Your task to perform on an android device: make emails show in primary in the gmail app Image 0: 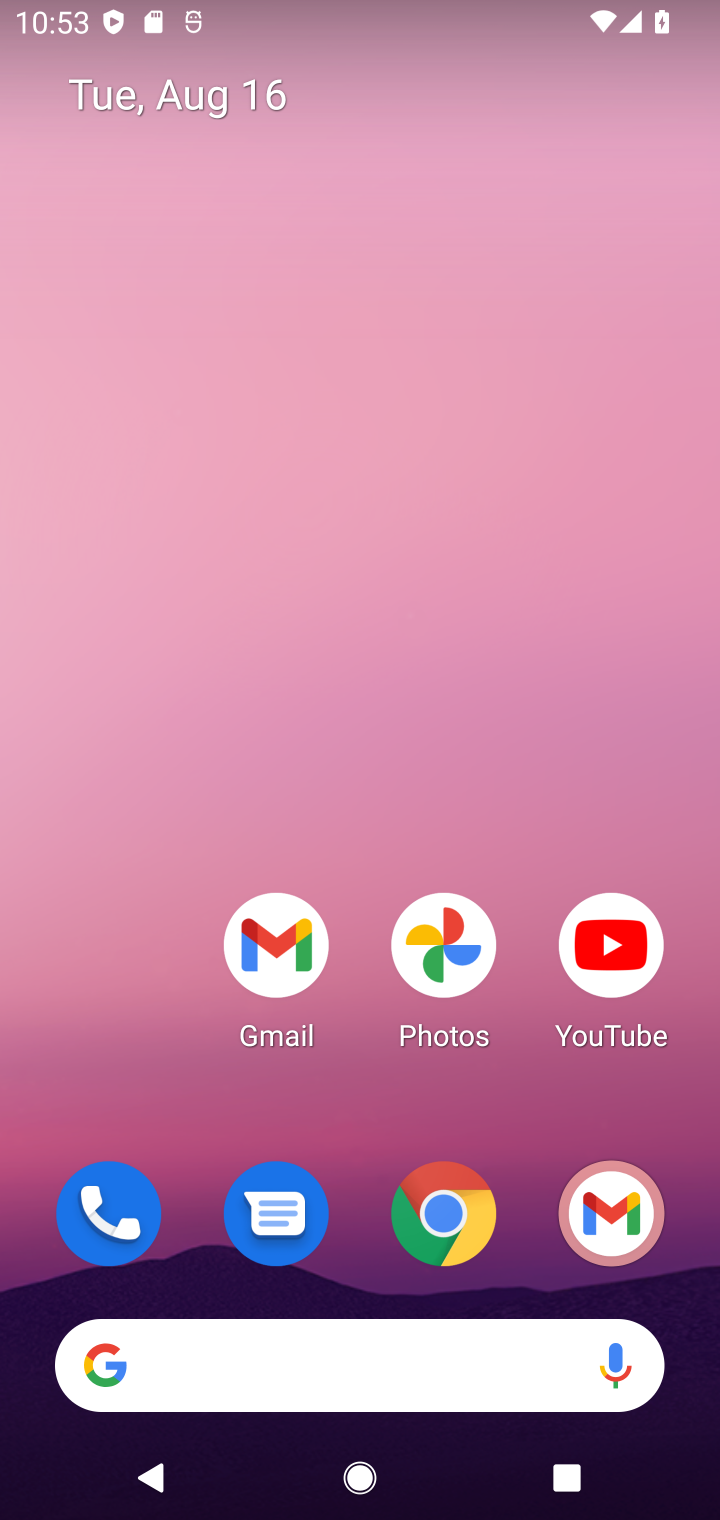
Step 0: drag from (340, 1122) to (516, 41)
Your task to perform on an android device: make emails show in primary in the gmail app Image 1: 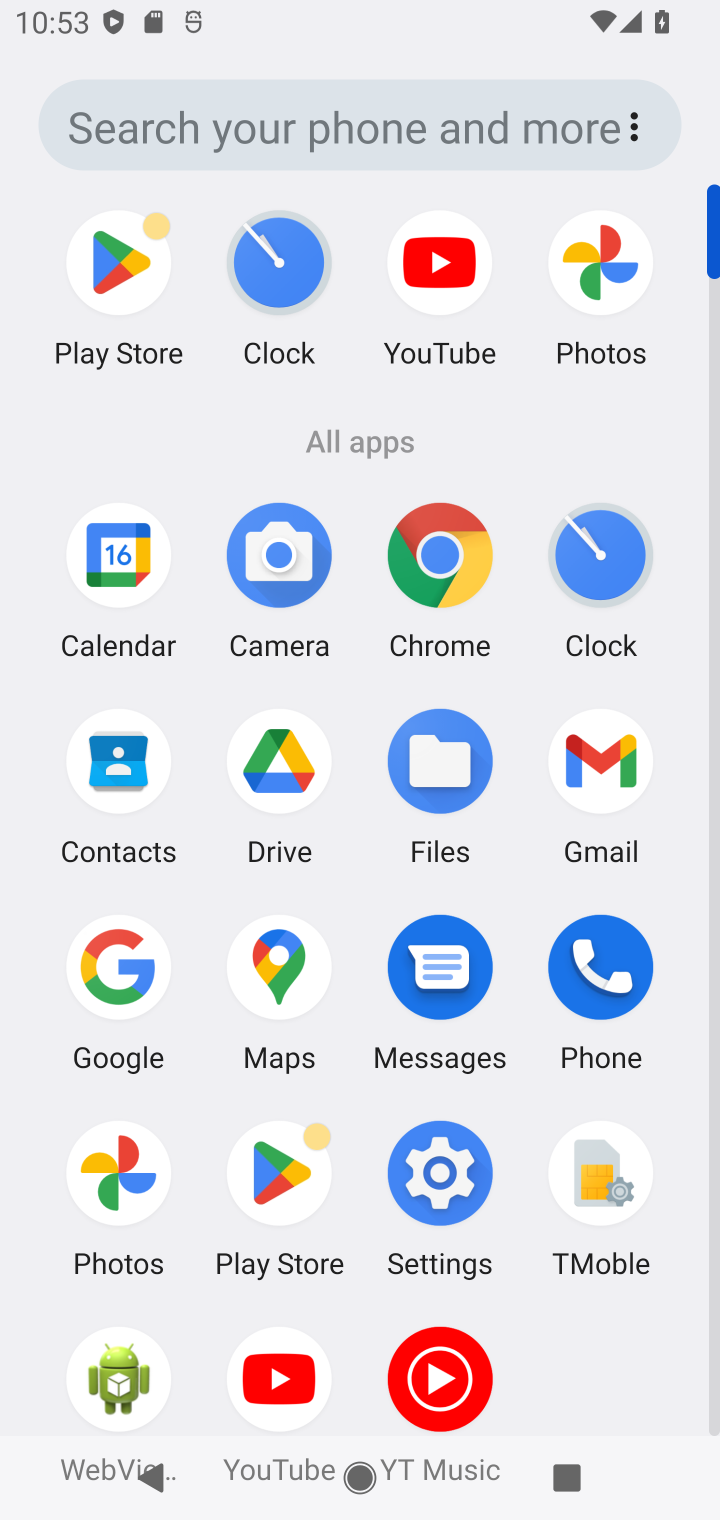
Step 1: click (599, 736)
Your task to perform on an android device: make emails show in primary in the gmail app Image 2: 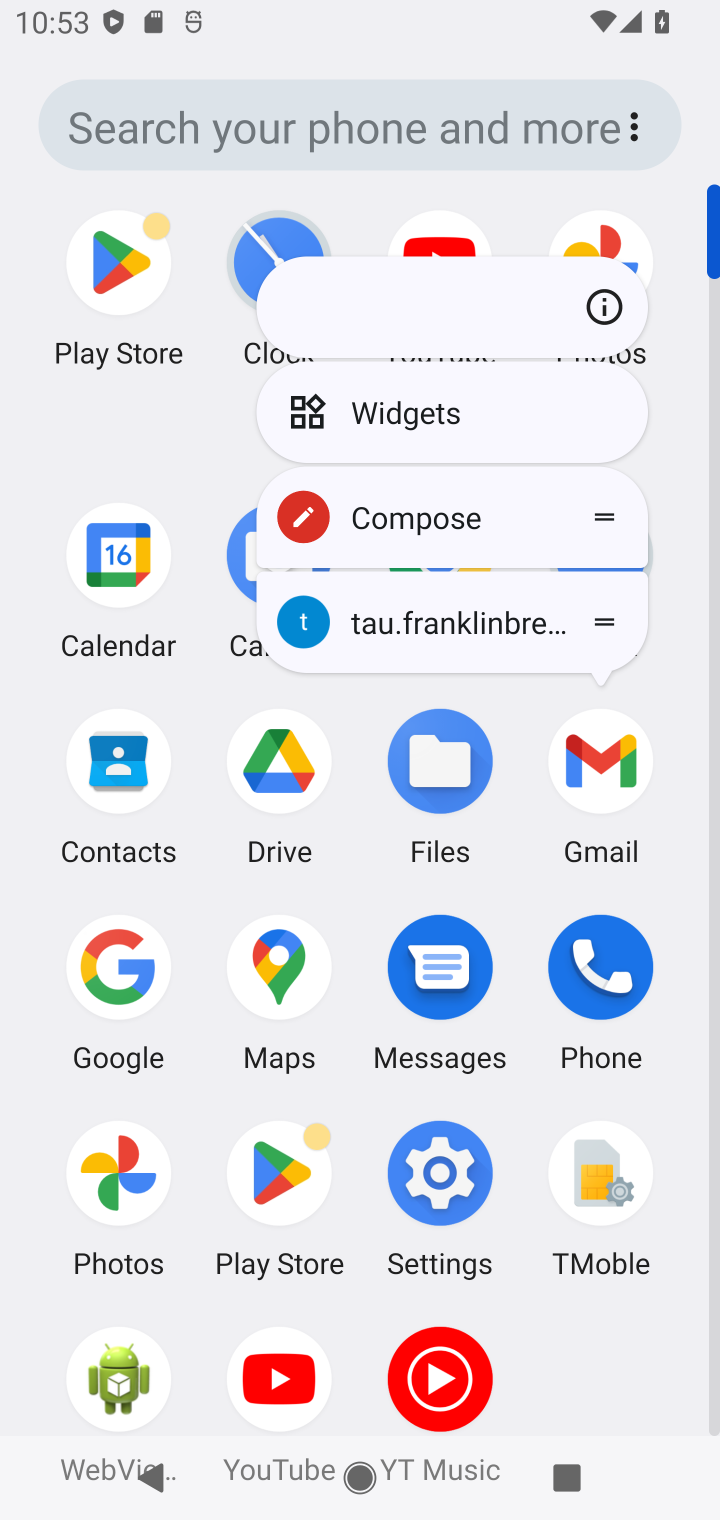
Step 2: click (585, 763)
Your task to perform on an android device: make emails show in primary in the gmail app Image 3: 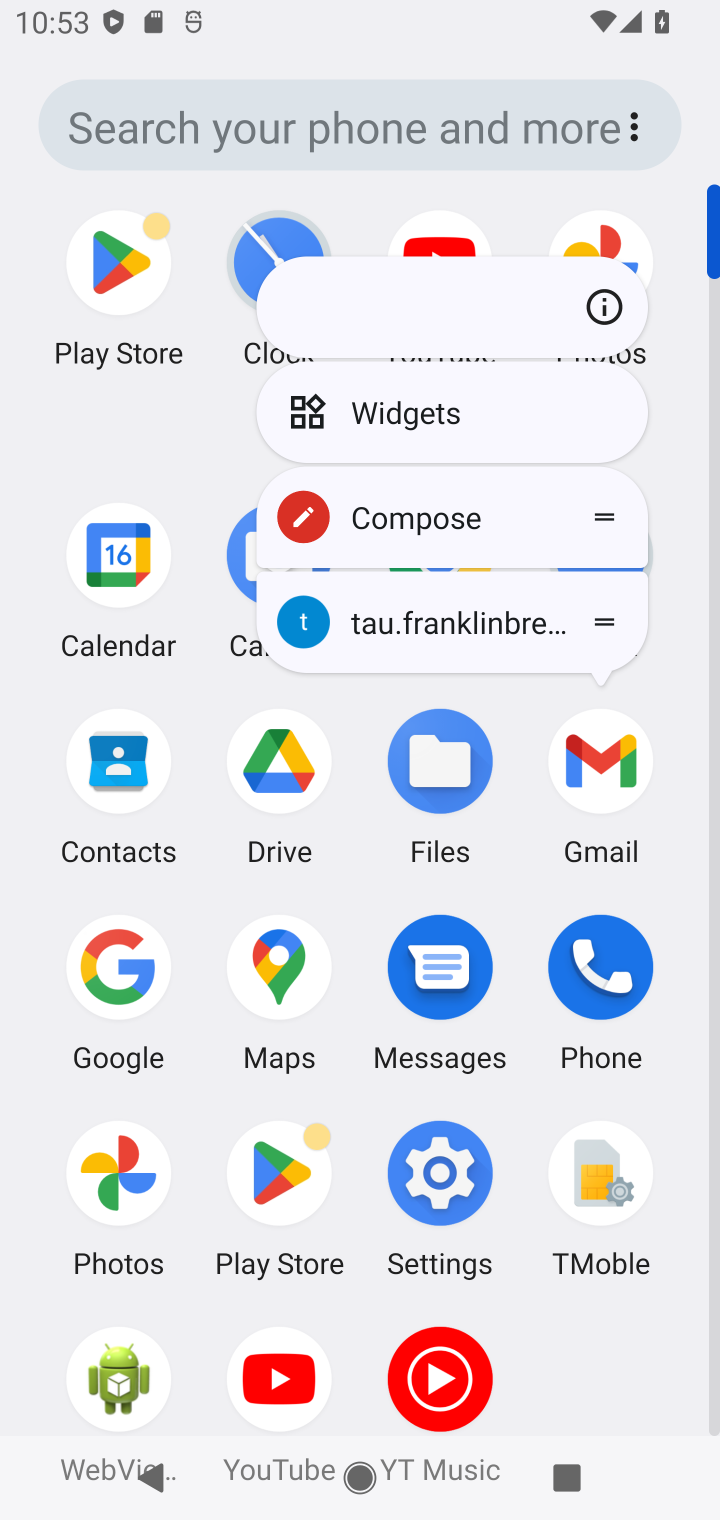
Step 3: click (585, 763)
Your task to perform on an android device: make emails show in primary in the gmail app Image 4: 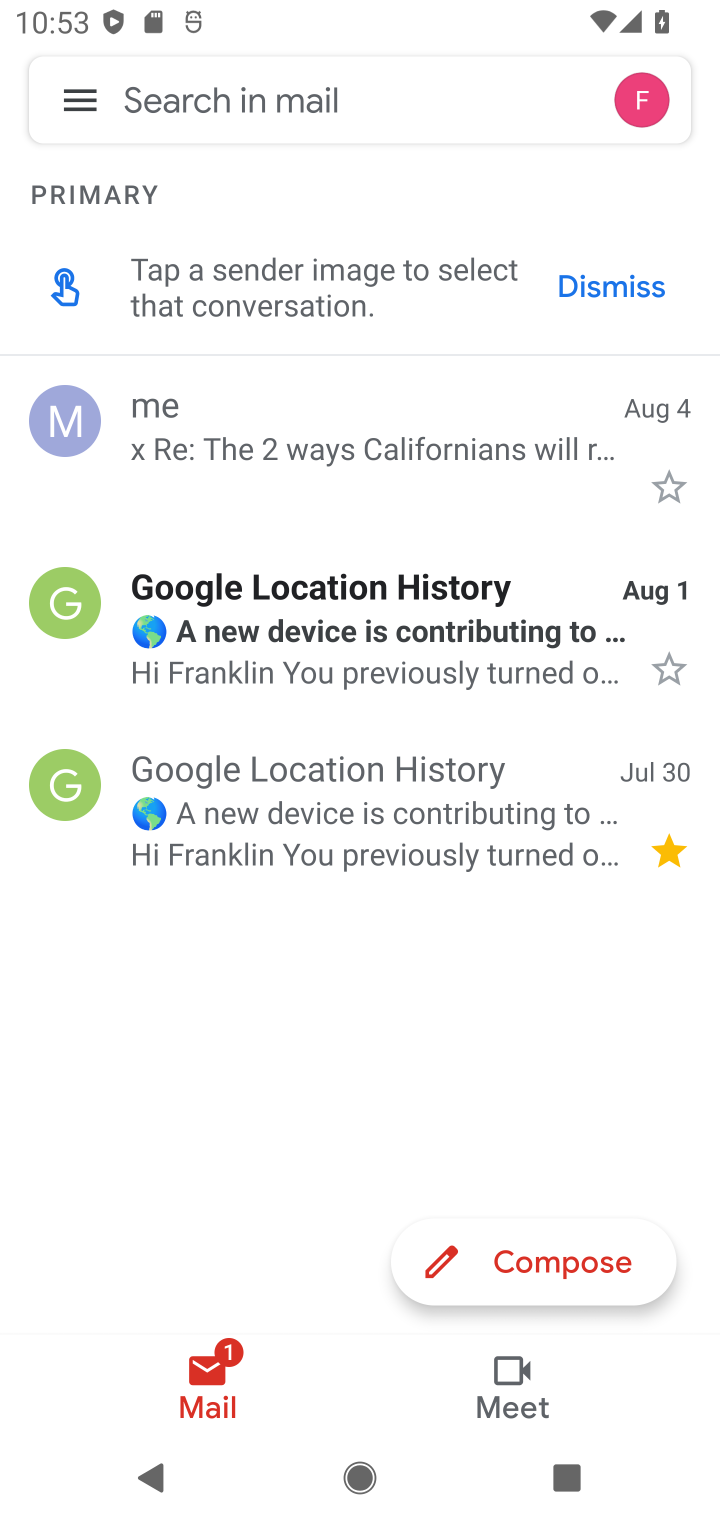
Step 4: click (64, 86)
Your task to perform on an android device: make emails show in primary in the gmail app Image 5: 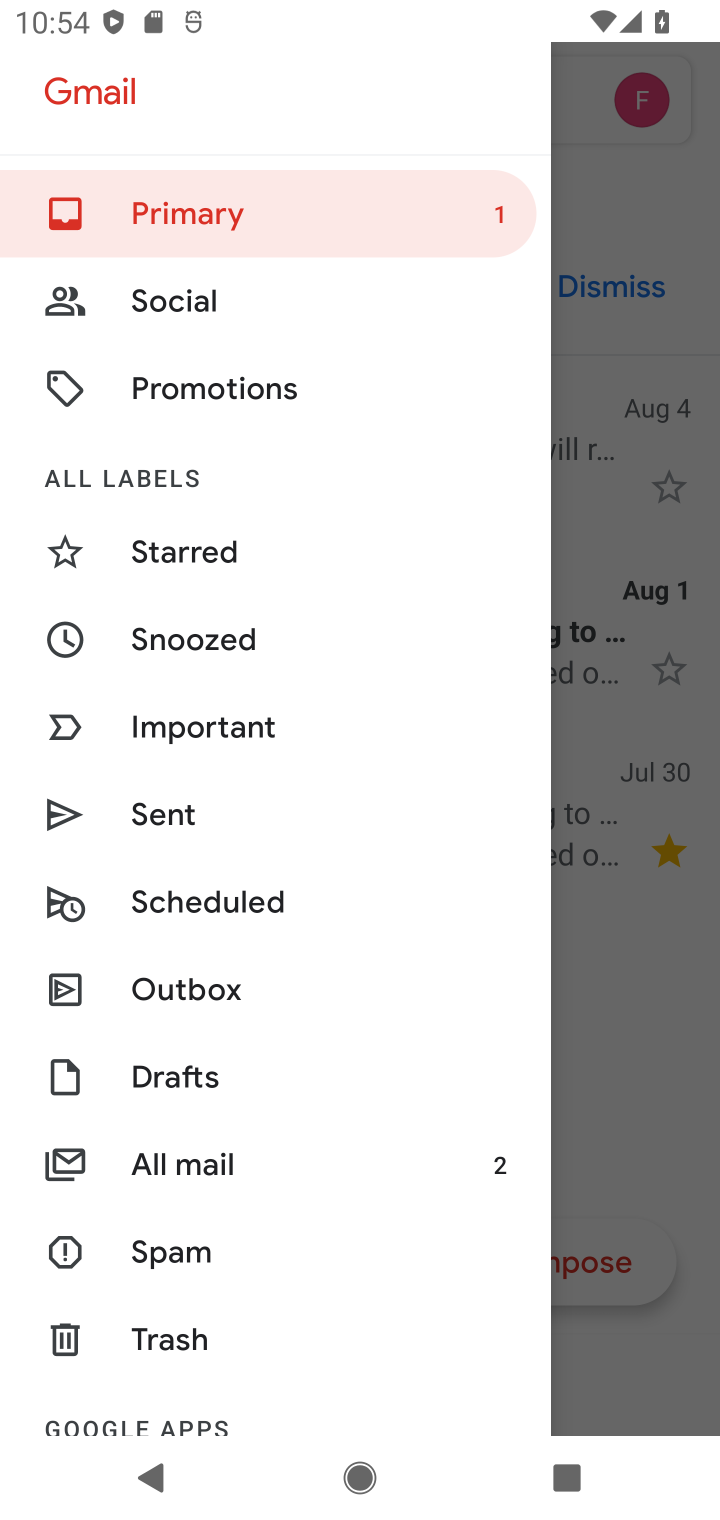
Step 5: drag from (259, 1416) to (381, 328)
Your task to perform on an android device: make emails show in primary in the gmail app Image 6: 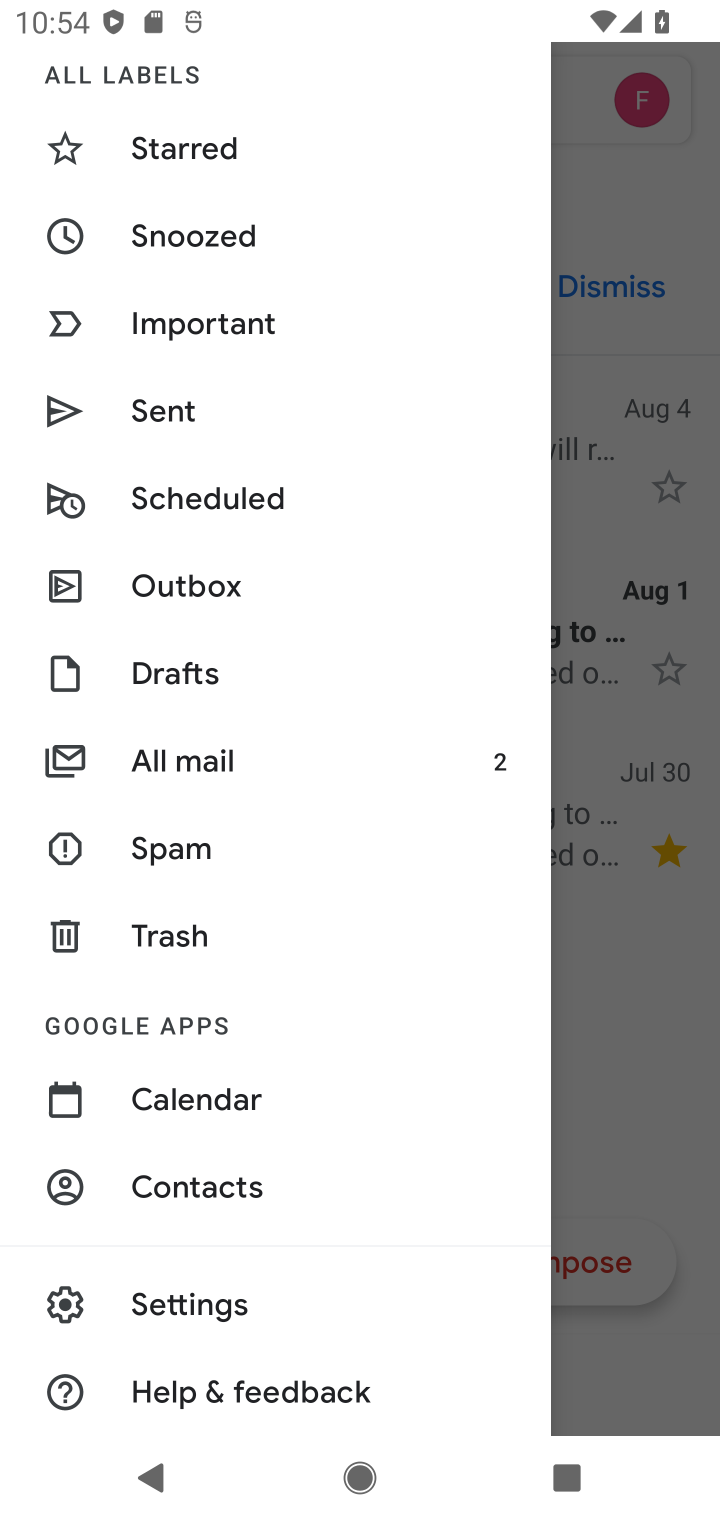
Step 6: click (189, 1316)
Your task to perform on an android device: make emails show in primary in the gmail app Image 7: 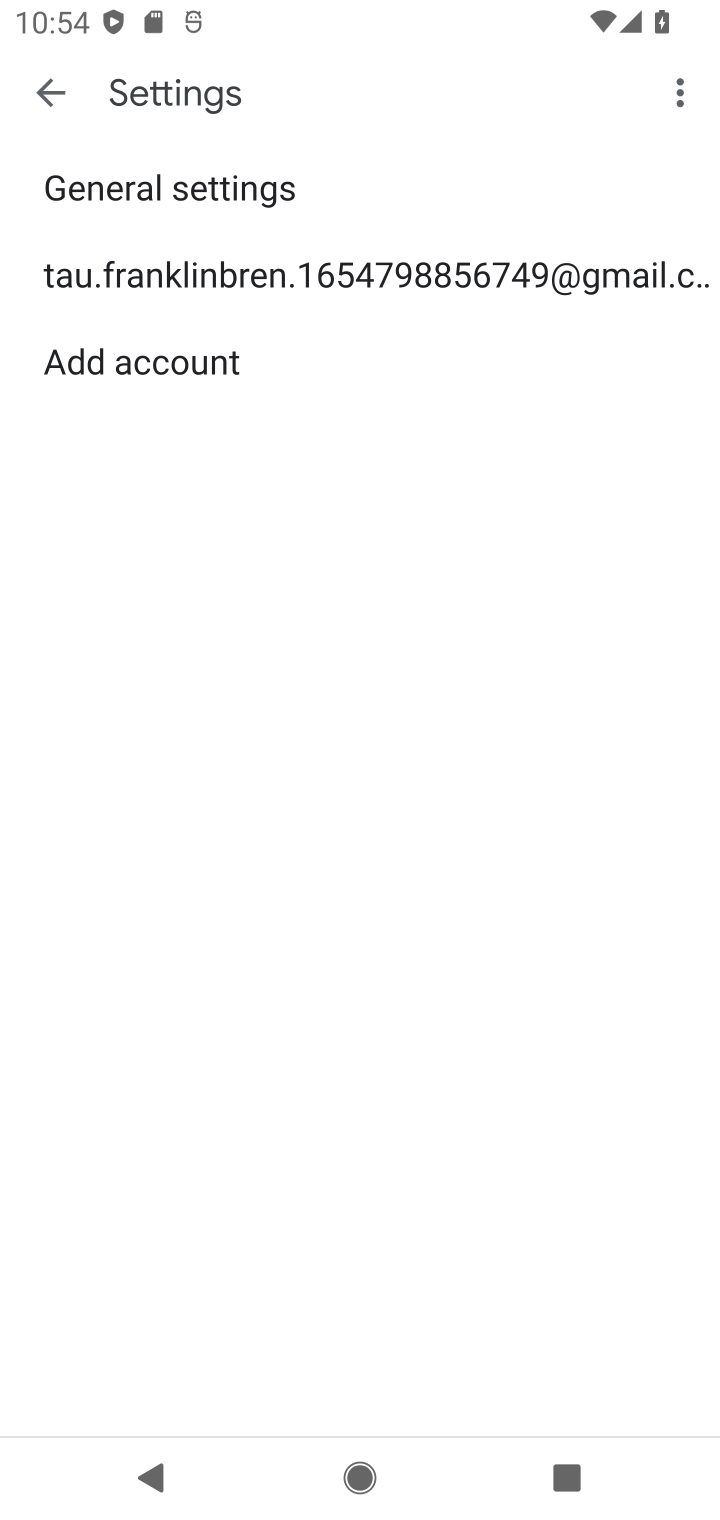
Step 7: click (282, 262)
Your task to perform on an android device: make emails show in primary in the gmail app Image 8: 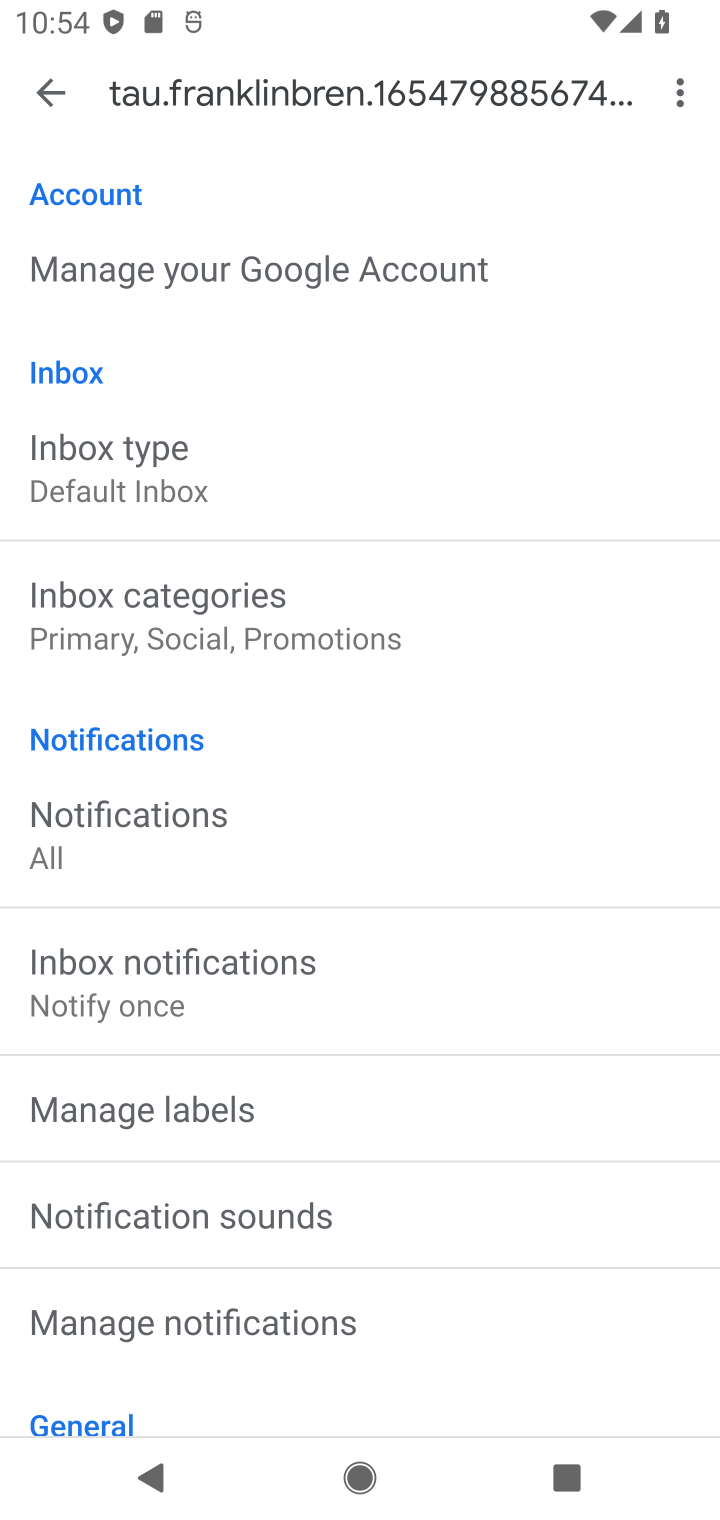
Step 8: click (200, 635)
Your task to perform on an android device: make emails show in primary in the gmail app Image 9: 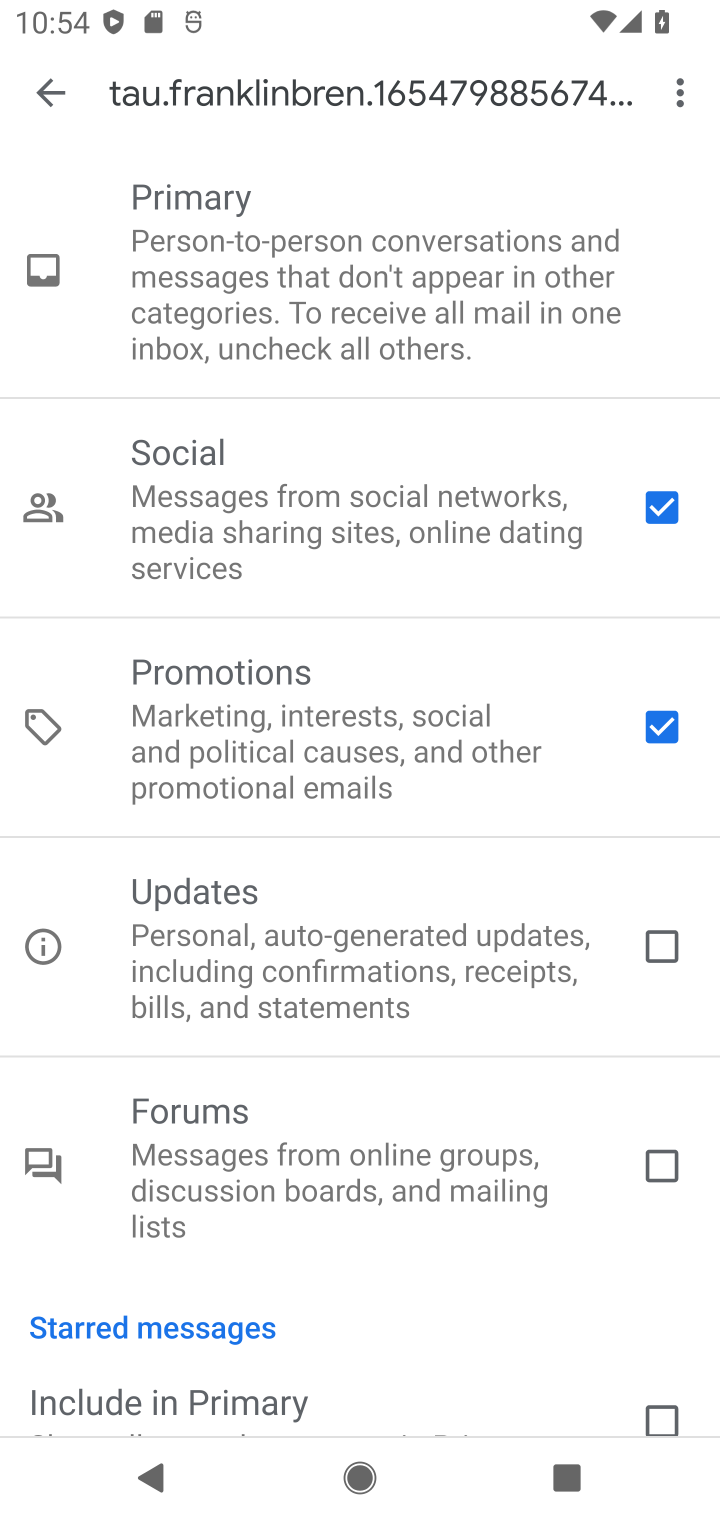
Step 9: task complete